Your task to perform on an android device: allow cookies in the chrome app Image 0: 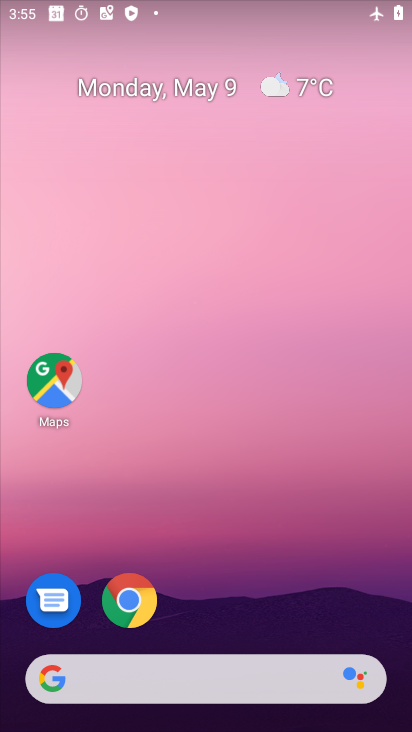
Step 0: click (129, 599)
Your task to perform on an android device: allow cookies in the chrome app Image 1: 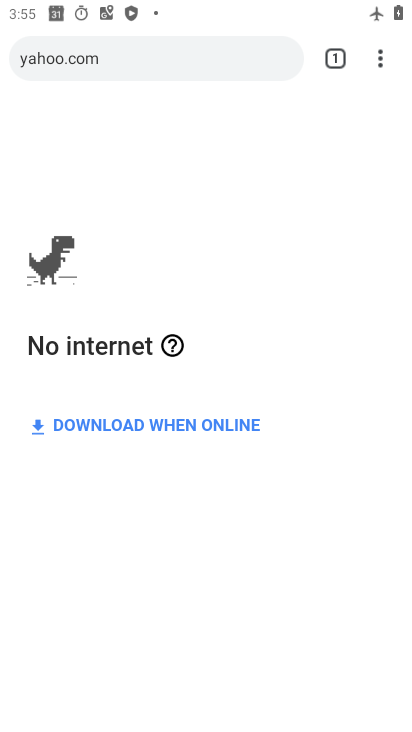
Step 1: press home button
Your task to perform on an android device: allow cookies in the chrome app Image 2: 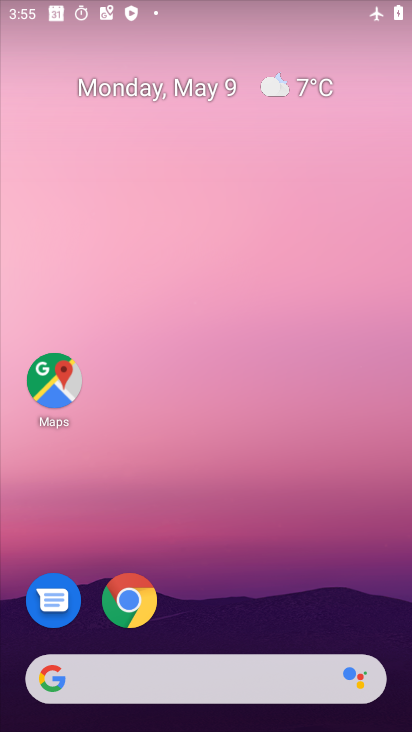
Step 2: drag from (330, 531) to (264, 41)
Your task to perform on an android device: allow cookies in the chrome app Image 3: 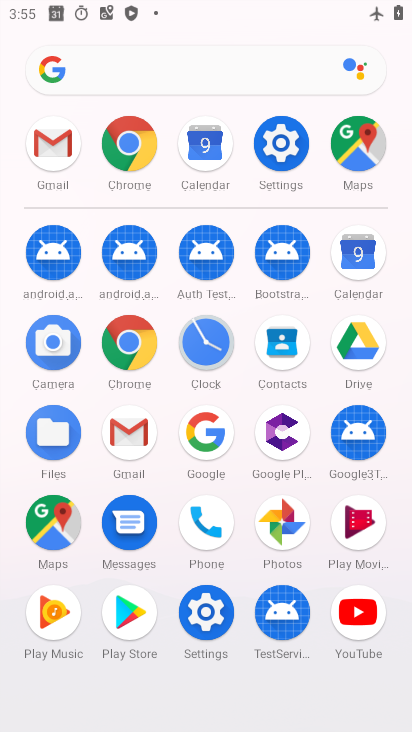
Step 3: click (130, 348)
Your task to perform on an android device: allow cookies in the chrome app Image 4: 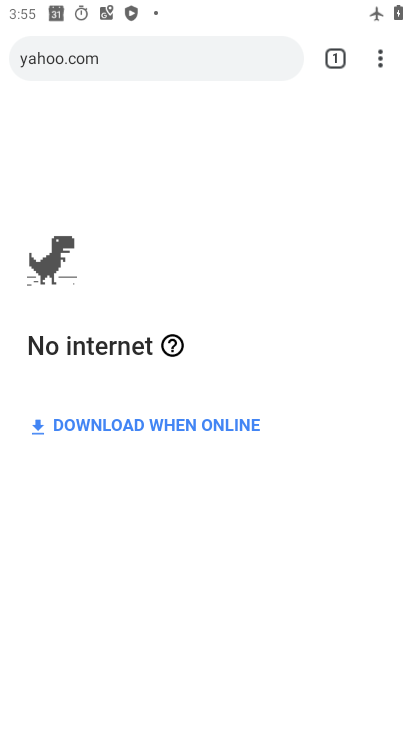
Step 4: drag from (378, 51) to (258, 648)
Your task to perform on an android device: allow cookies in the chrome app Image 5: 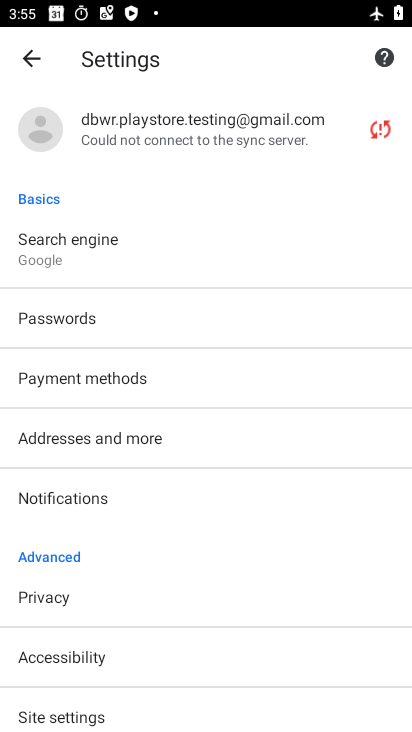
Step 5: click (94, 715)
Your task to perform on an android device: allow cookies in the chrome app Image 6: 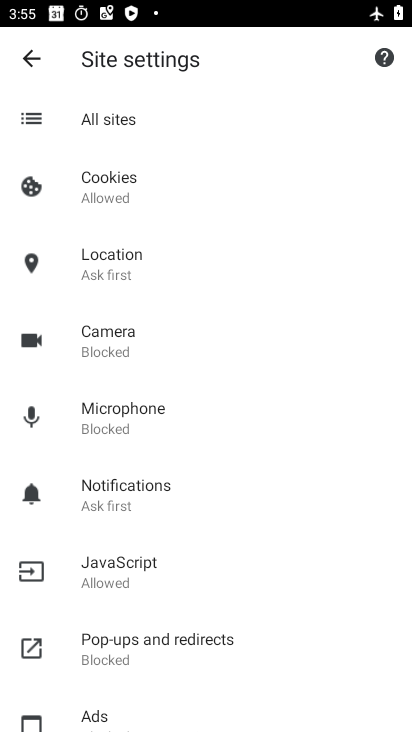
Step 6: click (100, 189)
Your task to perform on an android device: allow cookies in the chrome app Image 7: 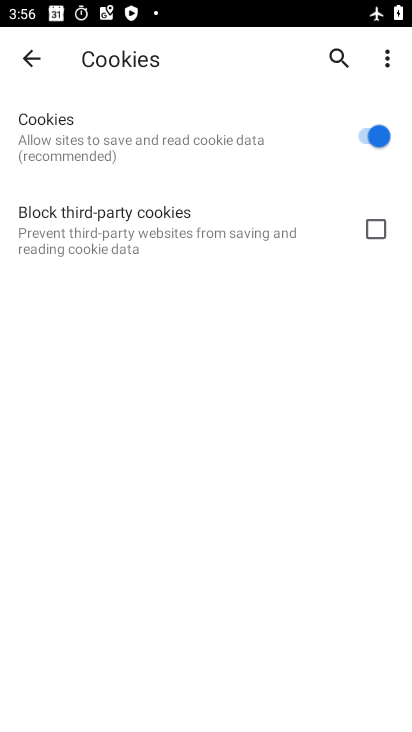
Step 7: task complete